Your task to perform on an android device: Search for good Korean restaurants Image 0: 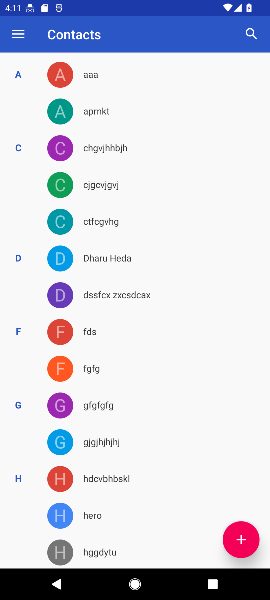
Step 0: press home button
Your task to perform on an android device: Search for good Korean restaurants Image 1: 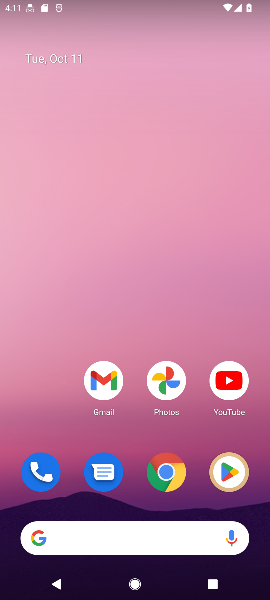
Step 1: click (174, 476)
Your task to perform on an android device: Search for good Korean restaurants Image 2: 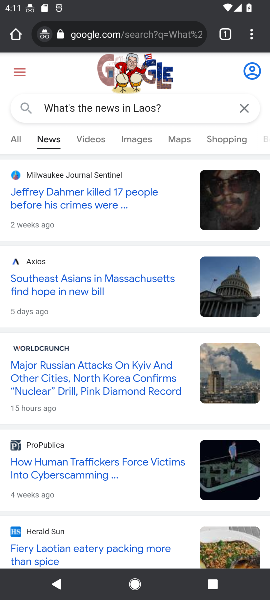
Step 2: click (94, 41)
Your task to perform on an android device: Search for good Korean restaurants Image 3: 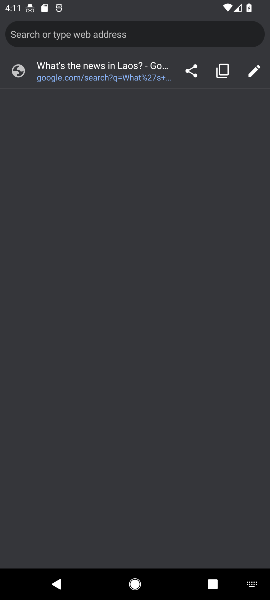
Step 3: type "good Korean restaurants"
Your task to perform on an android device: Search for good Korean restaurants Image 4: 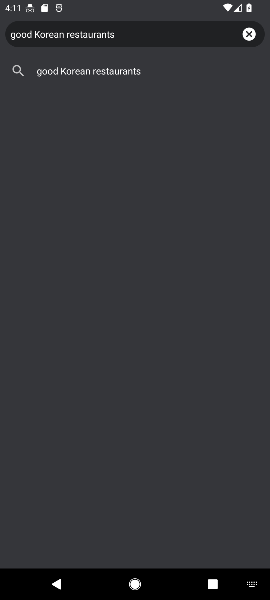
Step 4: click (92, 64)
Your task to perform on an android device: Search for good Korean restaurants Image 5: 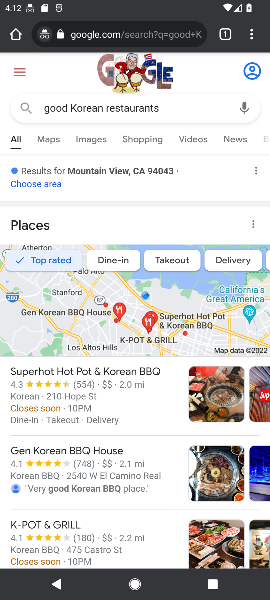
Step 5: task complete